Your task to perform on an android device: install app "DoorDash - Food Delivery" Image 0: 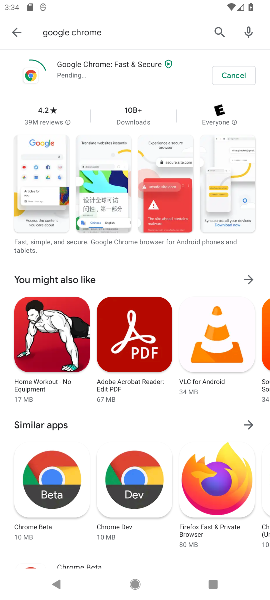
Step 0: click (14, 31)
Your task to perform on an android device: install app "DoorDash - Food Delivery" Image 1: 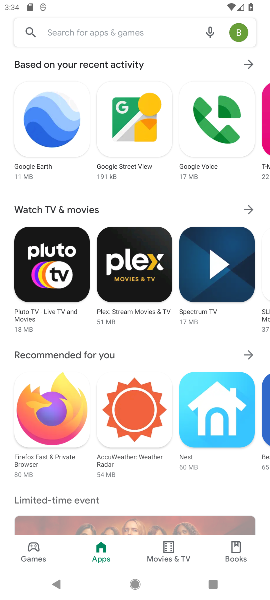
Step 1: press back button
Your task to perform on an android device: install app "DoorDash - Food Delivery" Image 2: 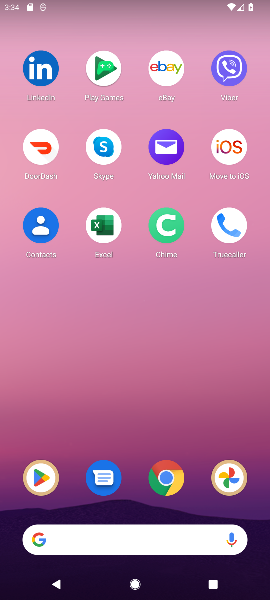
Step 2: drag from (154, 519) to (125, 243)
Your task to perform on an android device: install app "DoorDash - Food Delivery" Image 3: 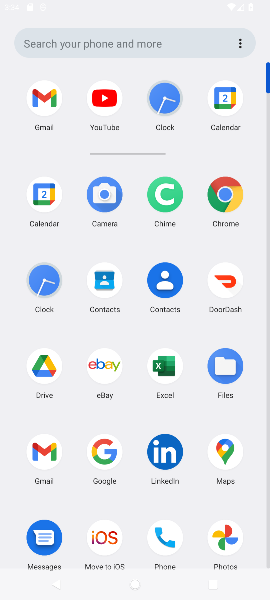
Step 3: drag from (145, 349) to (138, 212)
Your task to perform on an android device: install app "DoorDash - Food Delivery" Image 4: 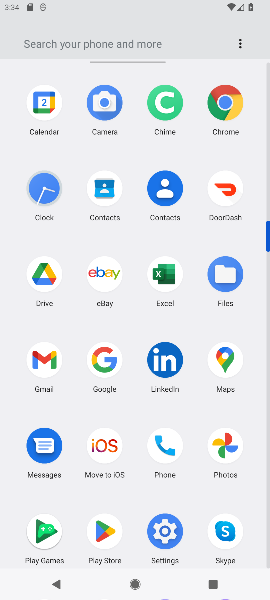
Step 4: click (105, 528)
Your task to perform on an android device: install app "DoorDash - Food Delivery" Image 5: 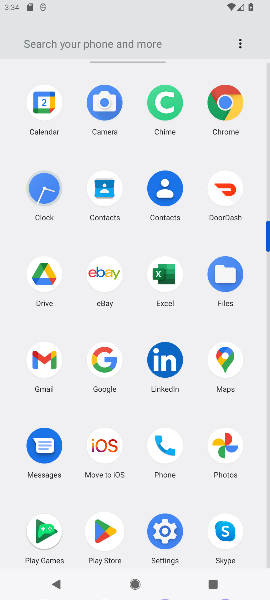
Step 5: click (105, 528)
Your task to perform on an android device: install app "DoorDash - Food Delivery" Image 6: 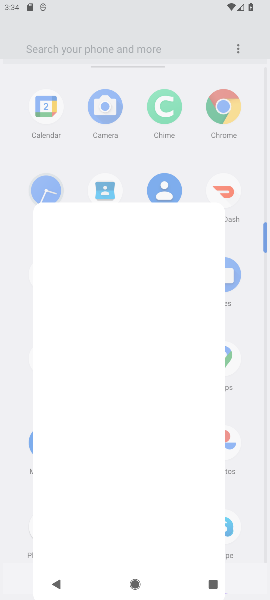
Step 6: click (106, 527)
Your task to perform on an android device: install app "DoorDash - Food Delivery" Image 7: 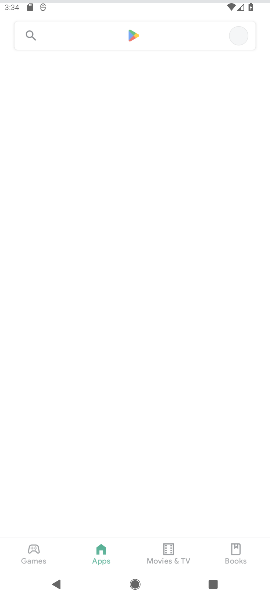
Step 7: click (106, 527)
Your task to perform on an android device: install app "DoorDash - Food Delivery" Image 8: 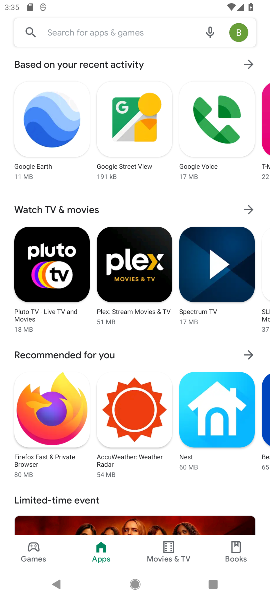
Step 8: click (71, 23)
Your task to perform on an android device: install app "DoorDash - Food Delivery" Image 9: 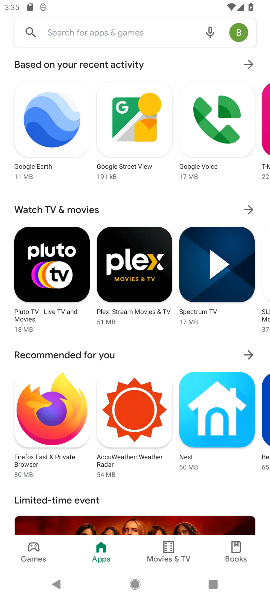
Step 9: click (71, 23)
Your task to perform on an android device: install app "DoorDash - Food Delivery" Image 10: 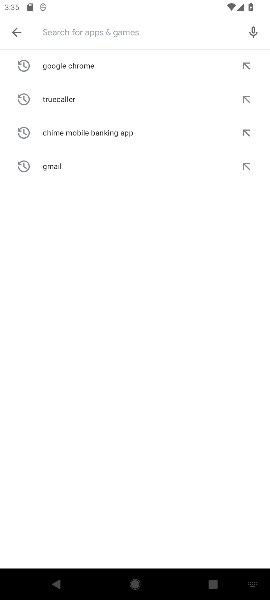
Step 10: click (71, 23)
Your task to perform on an android device: install app "DoorDash - Food Delivery" Image 11: 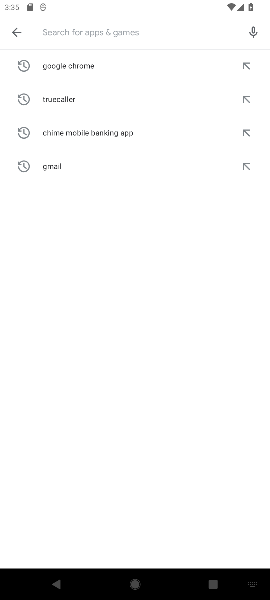
Step 11: type "doordash"
Your task to perform on an android device: install app "DoorDash - Food Delivery" Image 12: 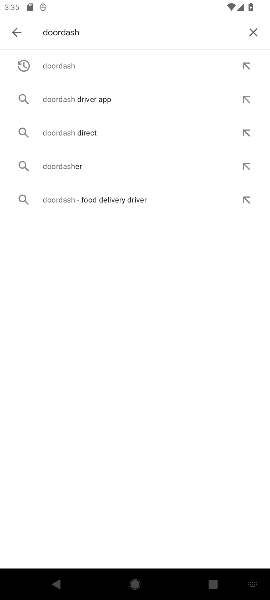
Step 12: click (69, 57)
Your task to perform on an android device: install app "DoorDash - Food Delivery" Image 13: 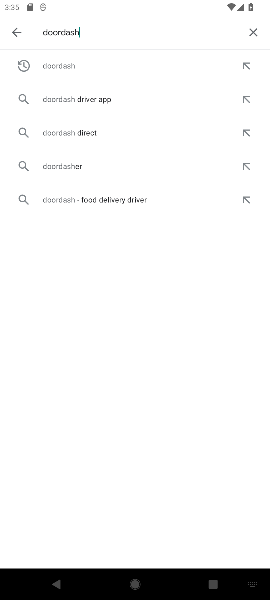
Step 13: click (69, 57)
Your task to perform on an android device: install app "DoorDash - Food Delivery" Image 14: 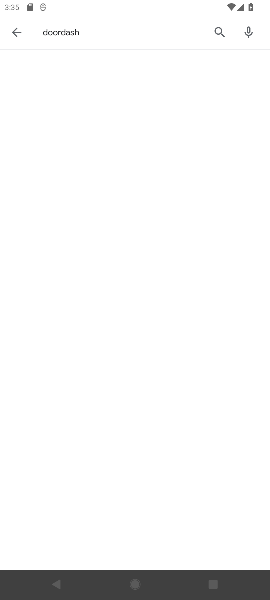
Step 14: click (68, 58)
Your task to perform on an android device: install app "DoorDash - Food Delivery" Image 15: 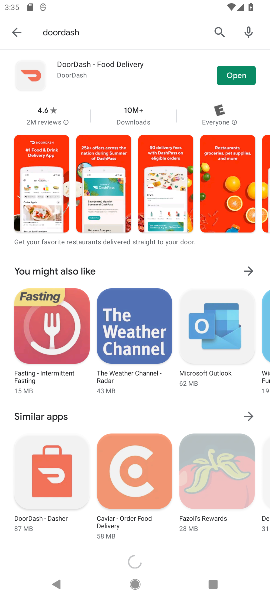
Step 15: click (68, 58)
Your task to perform on an android device: install app "DoorDash - Food Delivery" Image 16: 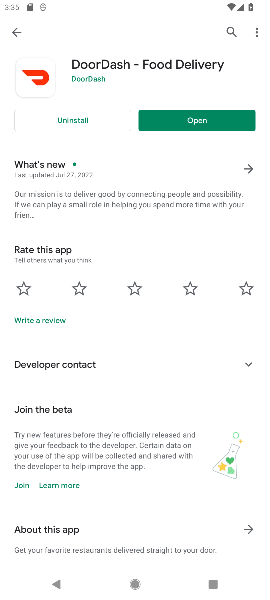
Step 16: click (191, 122)
Your task to perform on an android device: install app "DoorDash - Food Delivery" Image 17: 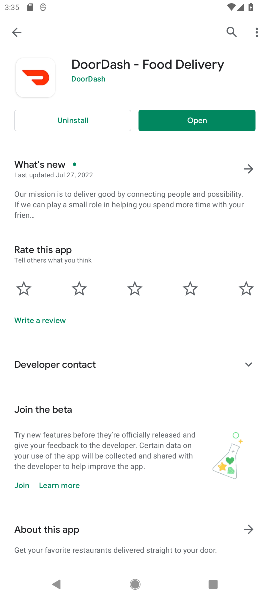
Step 17: click (191, 122)
Your task to perform on an android device: install app "DoorDash - Food Delivery" Image 18: 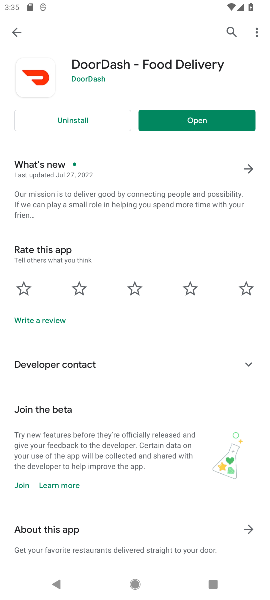
Step 18: click (195, 123)
Your task to perform on an android device: install app "DoorDash - Food Delivery" Image 19: 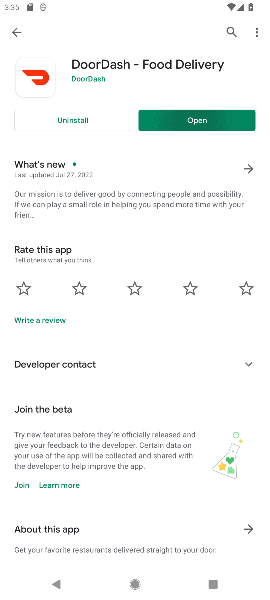
Step 19: click (195, 123)
Your task to perform on an android device: install app "DoorDash - Food Delivery" Image 20: 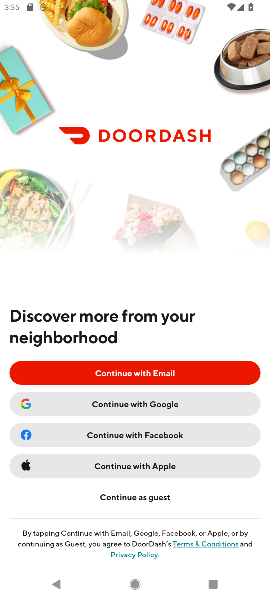
Step 20: click (159, 374)
Your task to perform on an android device: install app "DoorDash - Food Delivery" Image 21: 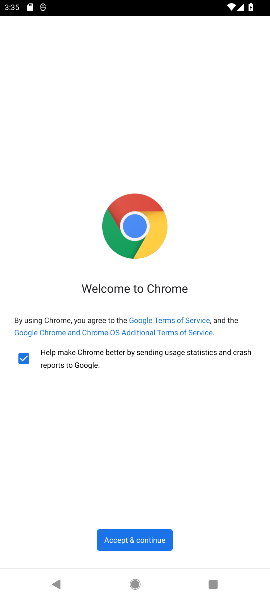
Step 21: click (145, 544)
Your task to perform on an android device: install app "DoorDash - Food Delivery" Image 22: 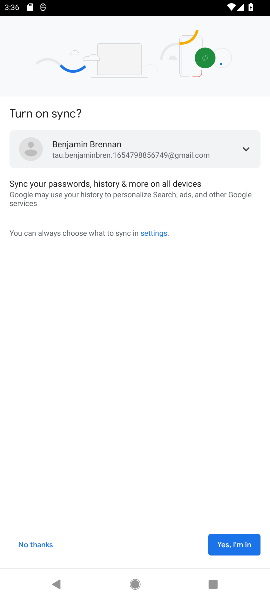
Step 22: task complete